Your task to perform on an android device: check the backup settings in the google photos Image 0: 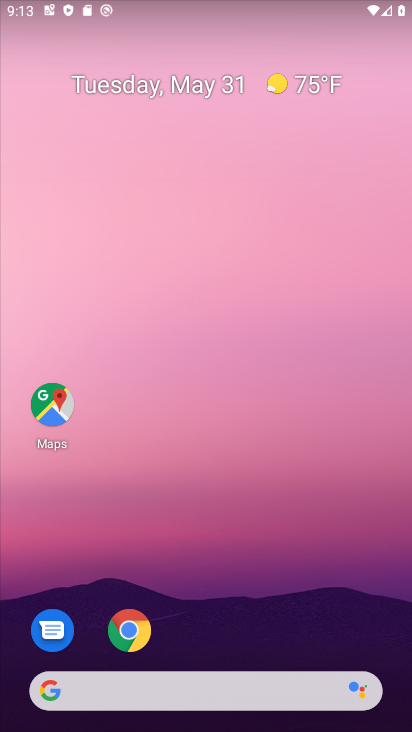
Step 0: drag from (275, 637) to (337, 215)
Your task to perform on an android device: check the backup settings in the google photos Image 1: 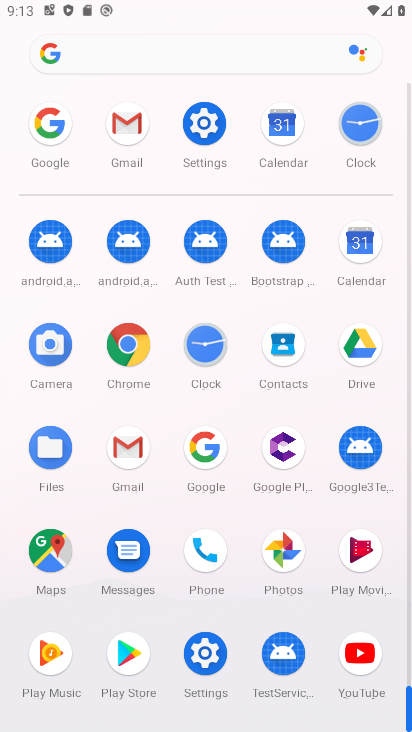
Step 1: click (220, 480)
Your task to perform on an android device: check the backup settings in the google photos Image 2: 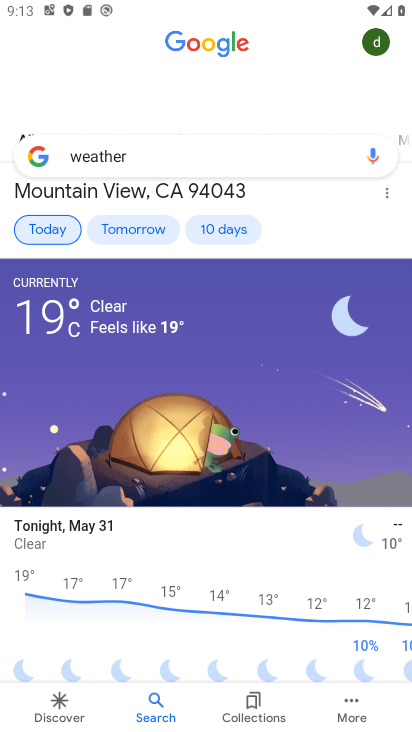
Step 2: click (356, 720)
Your task to perform on an android device: check the backup settings in the google photos Image 3: 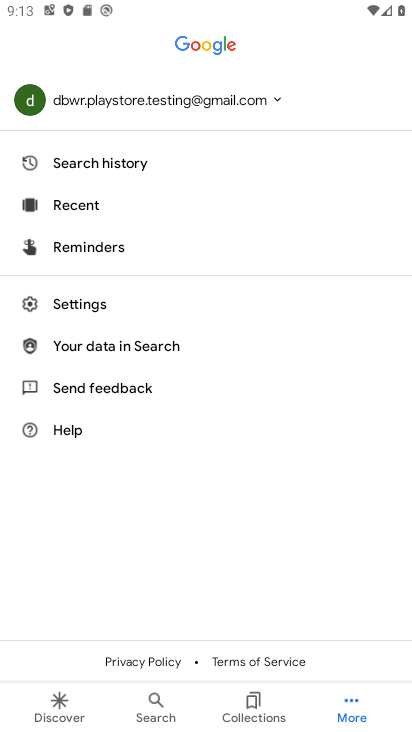
Step 3: click (75, 294)
Your task to perform on an android device: check the backup settings in the google photos Image 4: 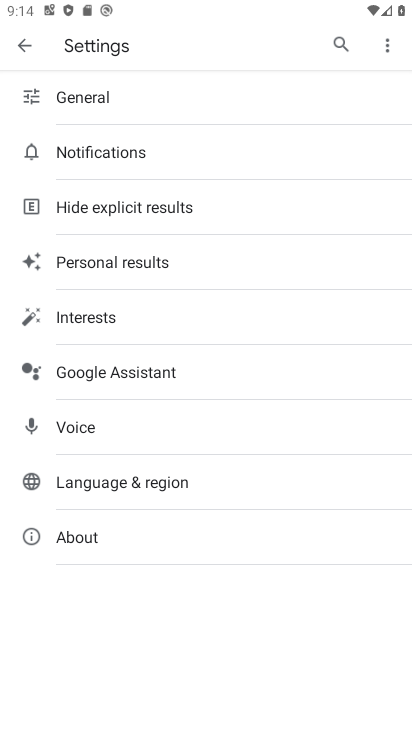
Step 4: press home button
Your task to perform on an android device: check the backup settings in the google photos Image 5: 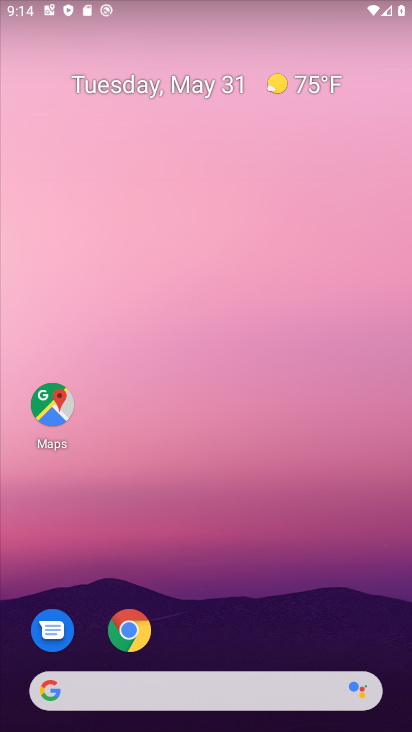
Step 5: drag from (219, 503) to (235, 145)
Your task to perform on an android device: check the backup settings in the google photos Image 6: 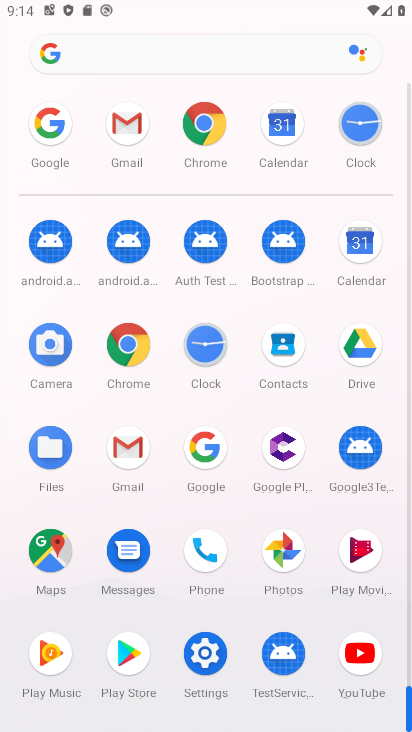
Step 6: click (288, 560)
Your task to perform on an android device: check the backup settings in the google photos Image 7: 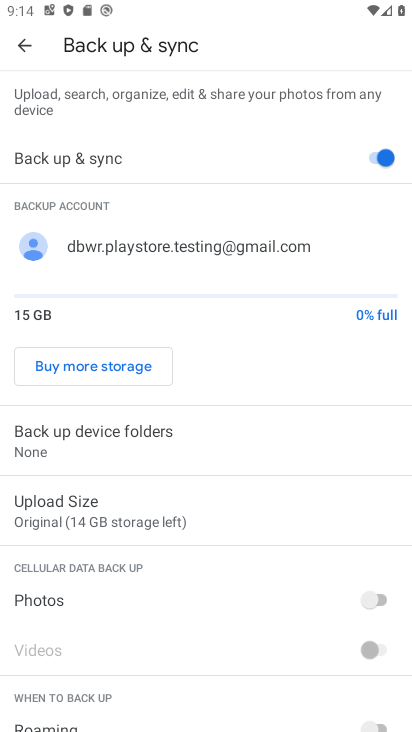
Step 7: task complete